Your task to perform on an android device: set default search engine in the chrome app Image 0: 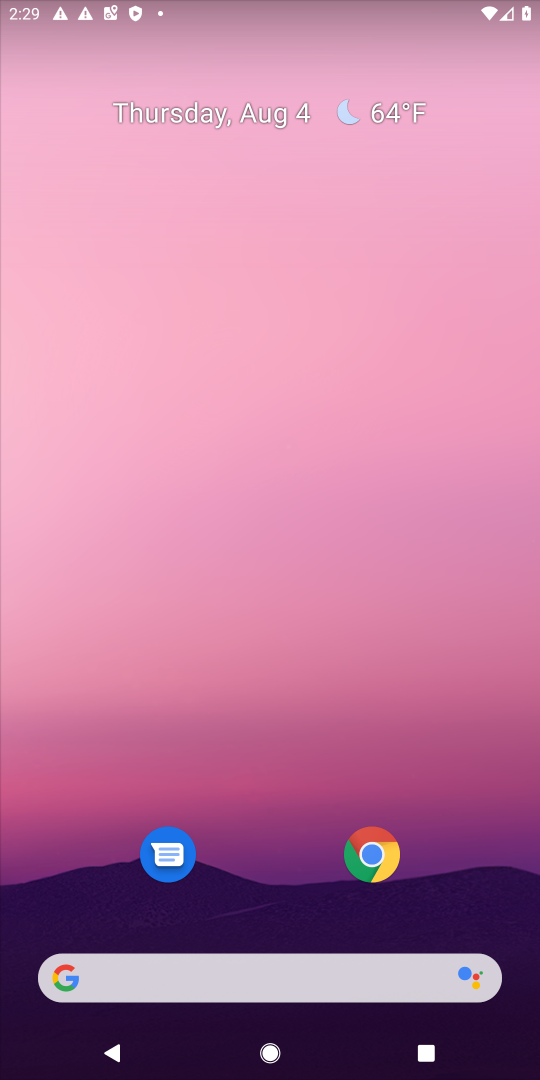
Step 0: drag from (277, 838) to (260, 318)
Your task to perform on an android device: set default search engine in the chrome app Image 1: 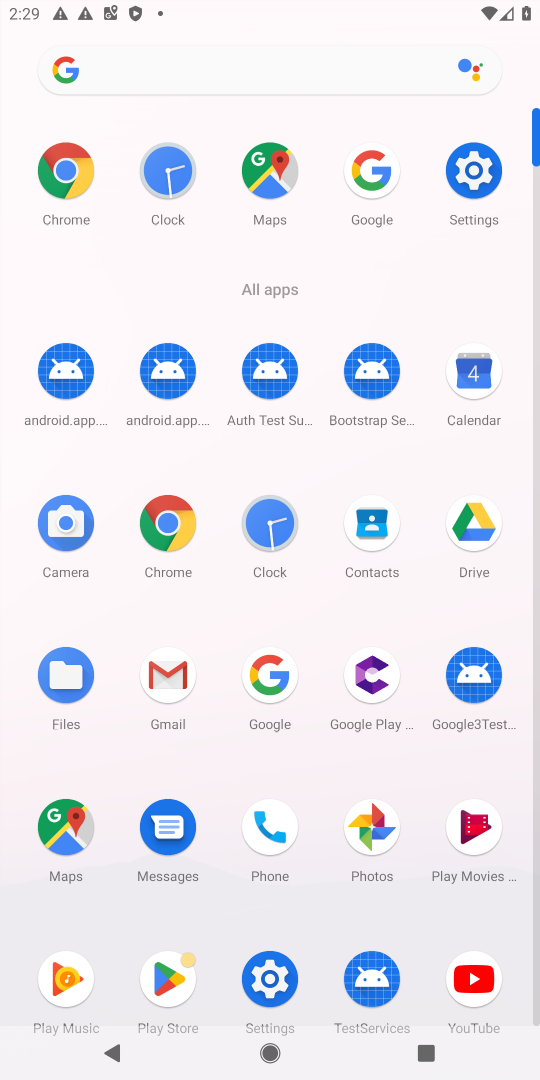
Step 1: click (166, 528)
Your task to perform on an android device: set default search engine in the chrome app Image 2: 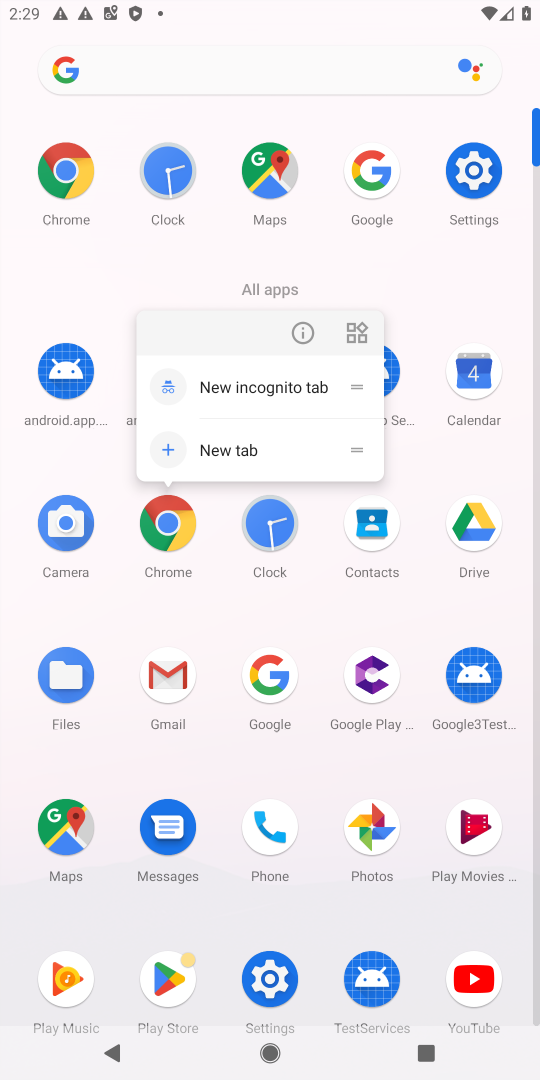
Step 2: click (166, 528)
Your task to perform on an android device: set default search engine in the chrome app Image 3: 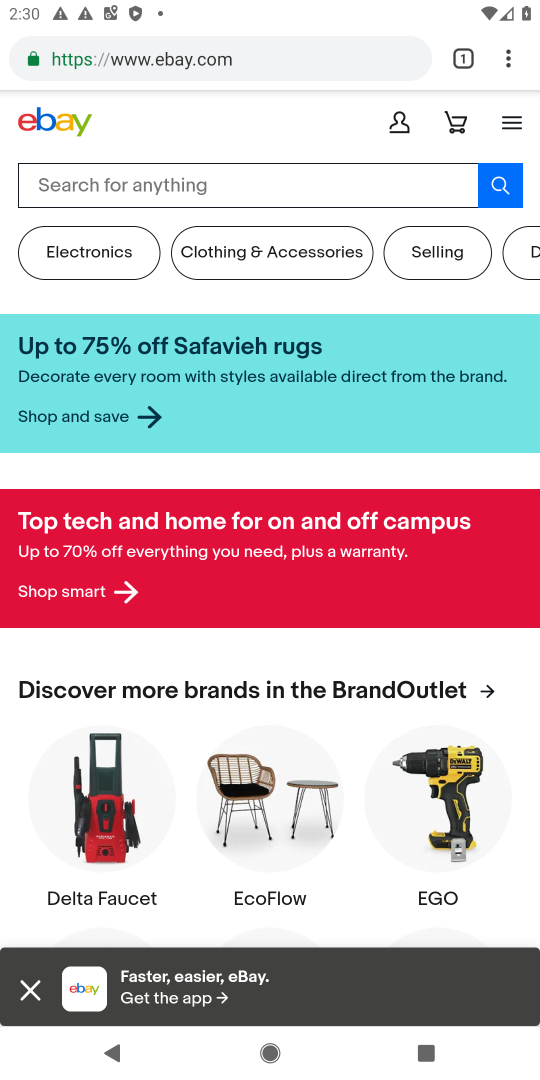
Step 3: click (512, 63)
Your task to perform on an android device: set default search engine in the chrome app Image 4: 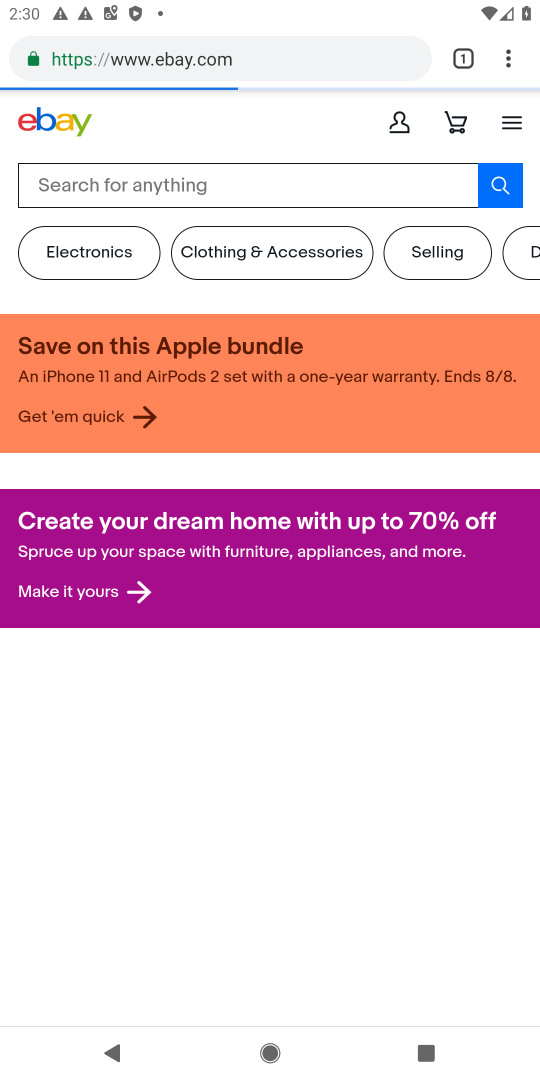
Step 4: click (510, 64)
Your task to perform on an android device: set default search engine in the chrome app Image 5: 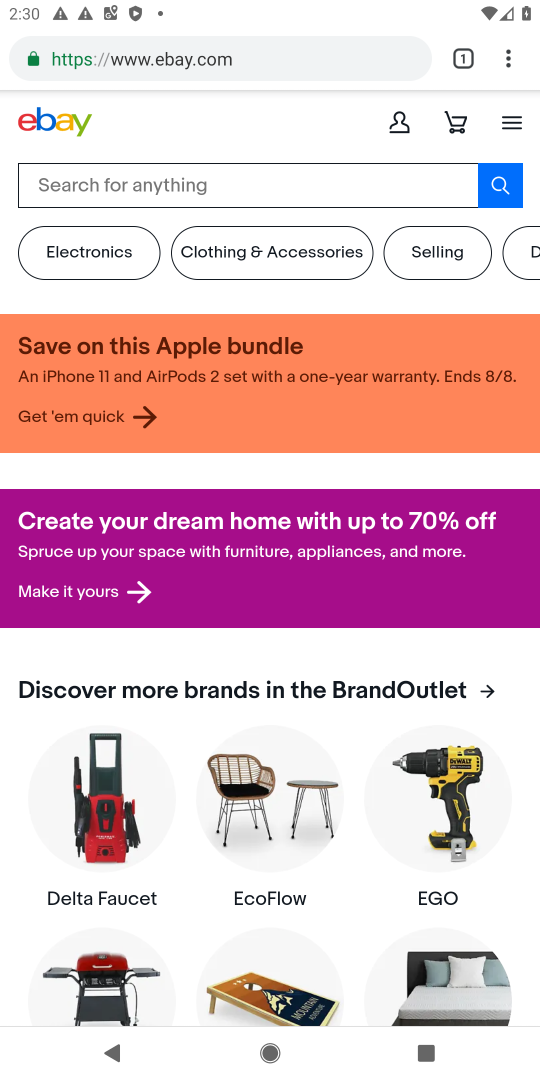
Step 5: click (511, 70)
Your task to perform on an android device: set default search engine in the chrome app Image 6: 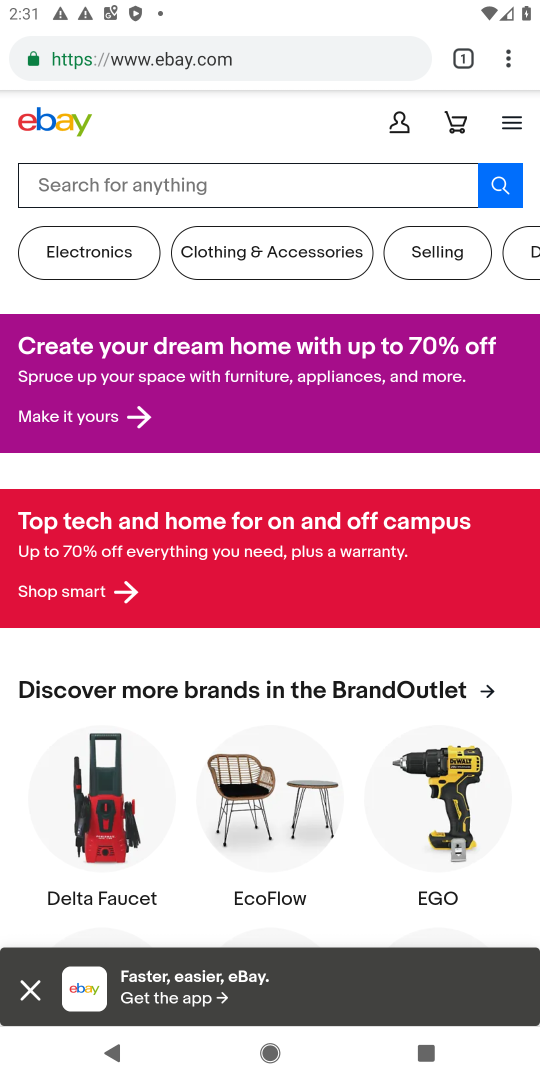
Step 6: click (510, 68)
Your task to perform on an android device: set default search engine in the chrome app Image 7: 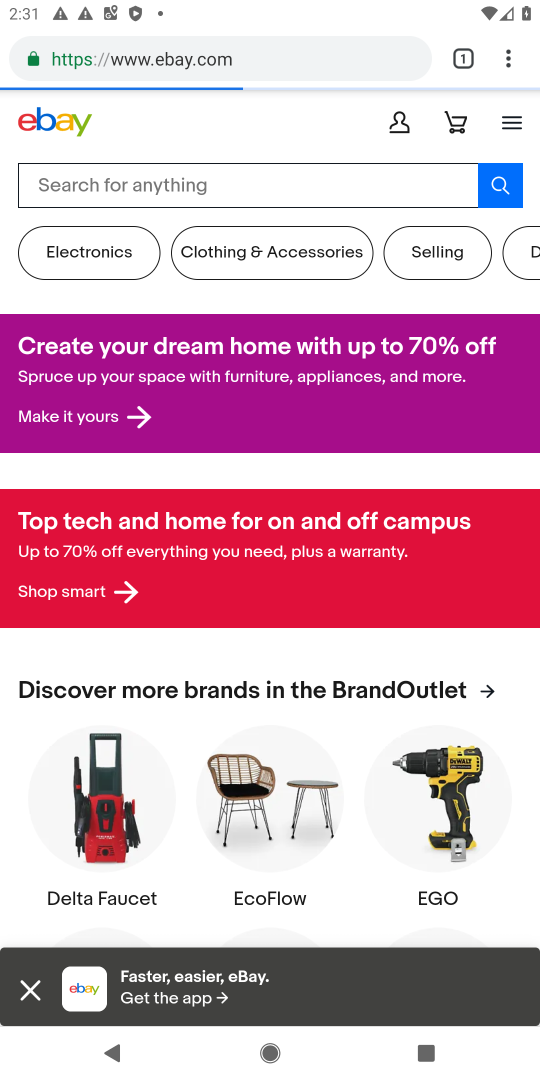
Step 7: click (510, 68)
Your task to perform on an android device: set default search engine in the chrome app Image 8: 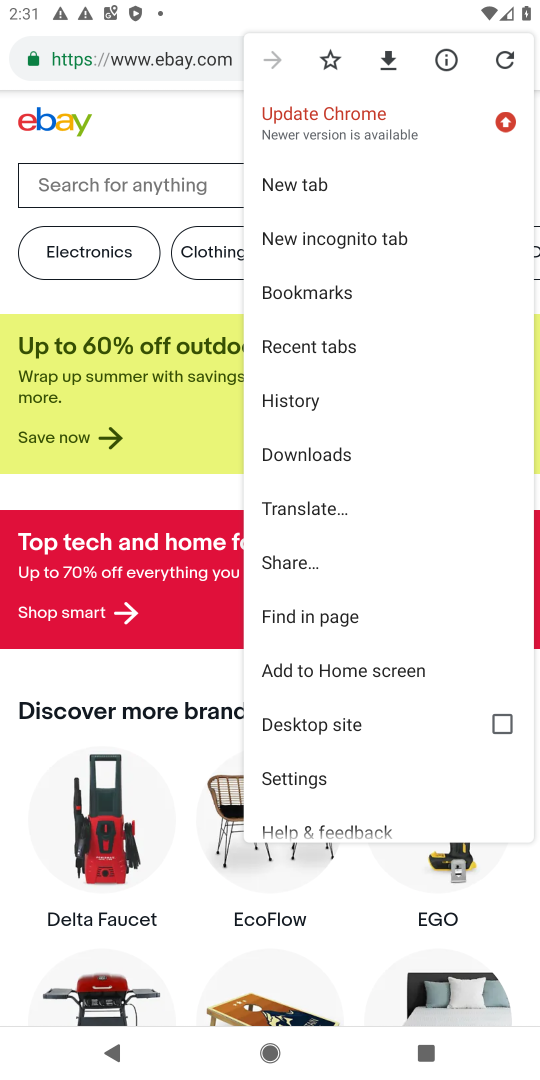
Step 8: click (316, 770)
Your task to perform on an android device: set default search engine in the chrome app Image 9: 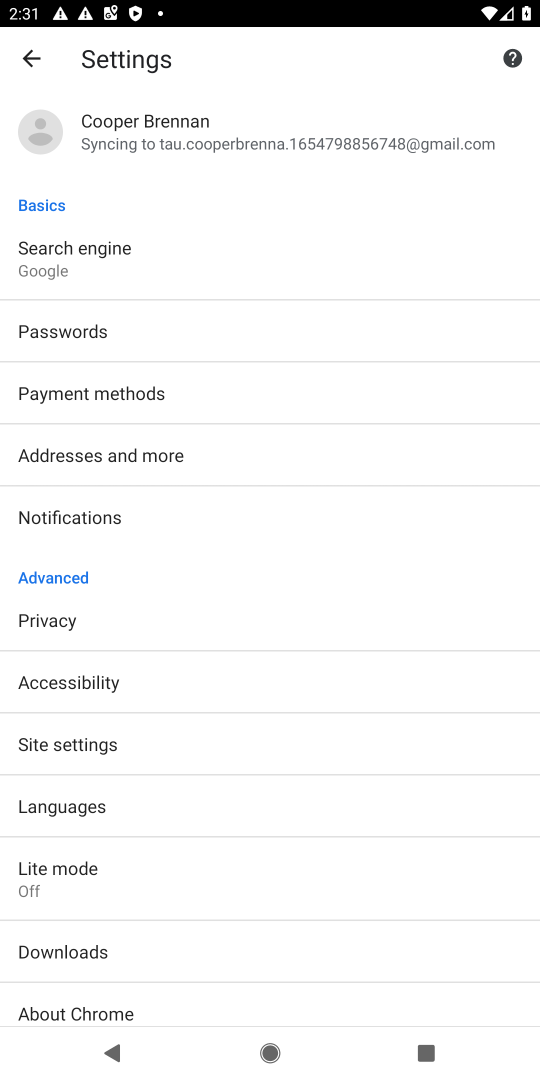
Step 9: click (40, 269)
Your task to perform on an android device: set default search engine in the chrome app Image 10: 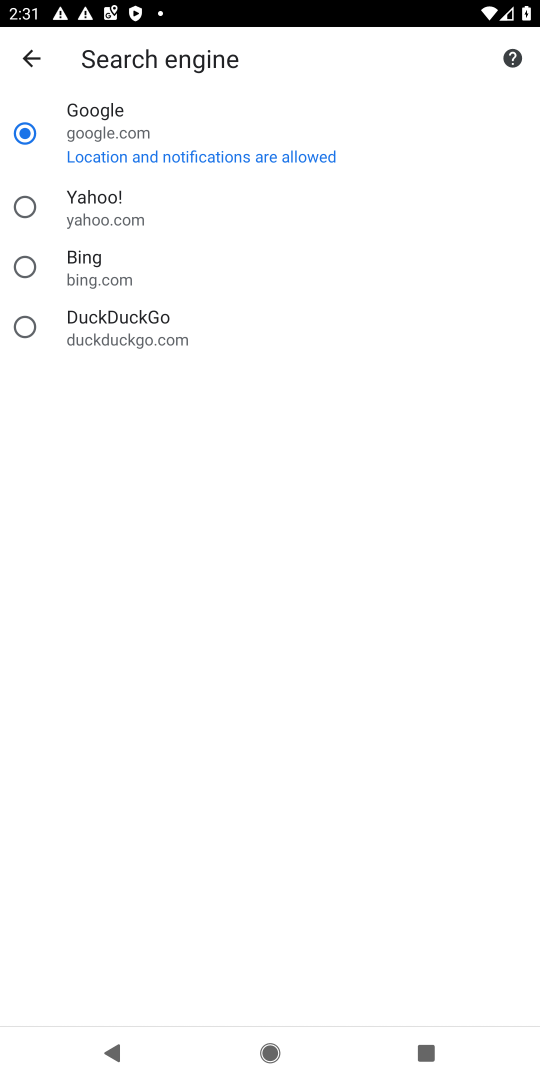
Step 10: task complete